Your task to perform on an android device: open the mobile data screen to see how much data has been used Image 0: 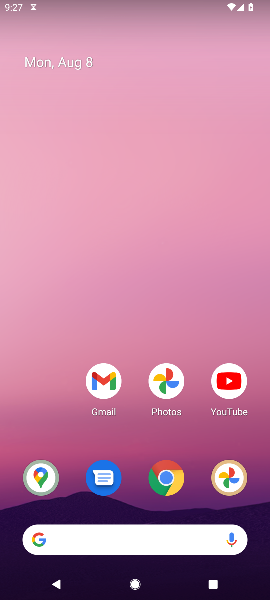
Step 0: press home button
Your task to perform on an android device: open the mobile data screen to see how much data has been used Image 1: 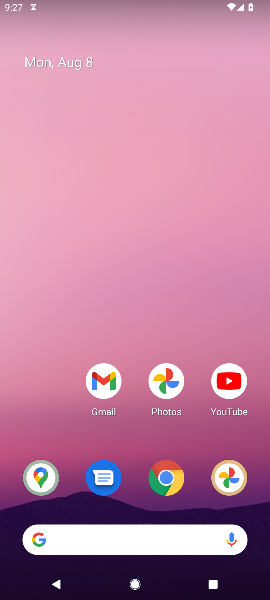
Step 1: drag from (121, 545) to (243, 173)
Your task to perform on an android device: open the mobile data screen to see how much data has been used Image 2: 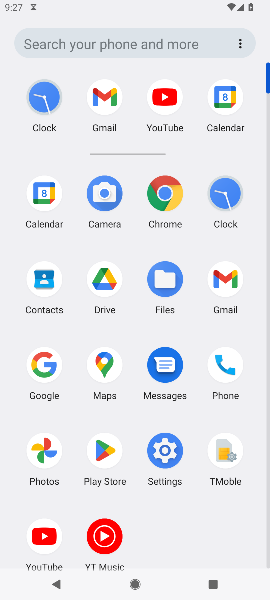
Step 2: click (165, 449)
Your task to perform on an android device: open the mobile data screen to see how much data has been used Image 3: 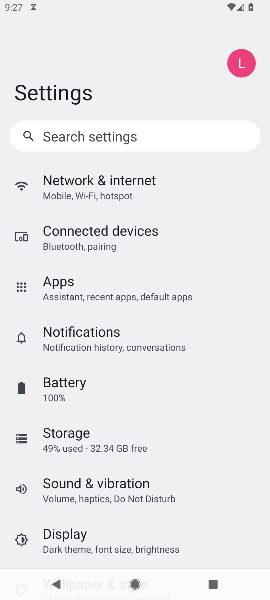
Step 3: drag from (186, 240) to (136, 475)
Your task to perform on an android device: open the mobile data screen to see how much data has been used Image 4: 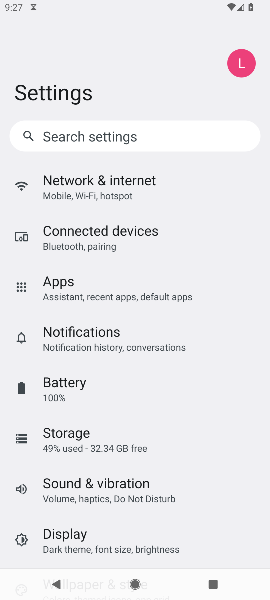
Step 4: click (96, 184)
Your task to perform on an android device: open the mobile data screen to see how much data has been used Image 5: 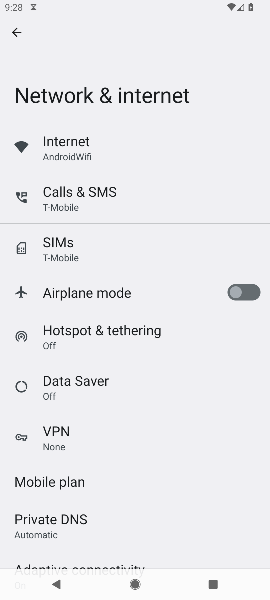
Step 5: click (85, 153)
Your task to perform on an android device: open the mobile data screen to see how much data has been used Image 6: 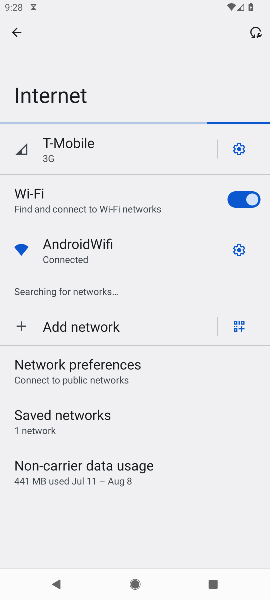
Step 6: click (76, 152)
Your task to perform on an android device: open the mobile data screen to see how much data has been used Image 7: 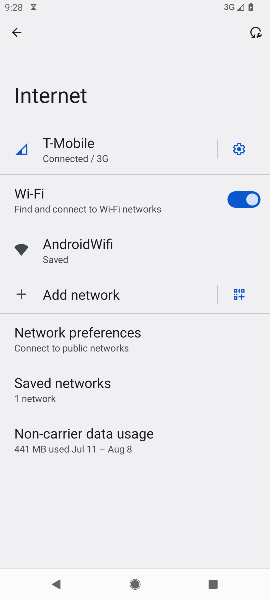
Step 7: click (240, 143)
Your task to perform on an android device: open the mobile data screen to see how much data has been used Image 8: 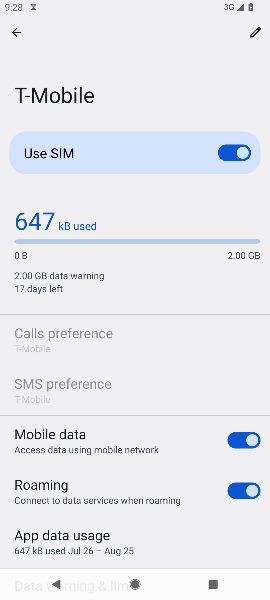
Step 8: task complete